Your task to perform on an android device: set the timer Image 0: 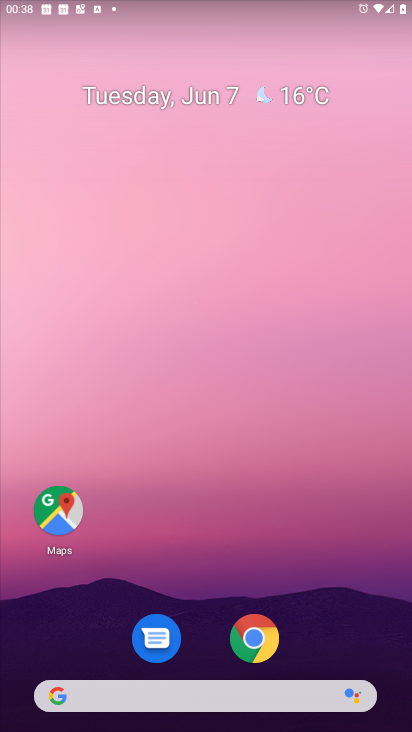
Step 0: drag from (283, 646) to (215, 69)
Your task to perform on an android device: set the timer Image 1: 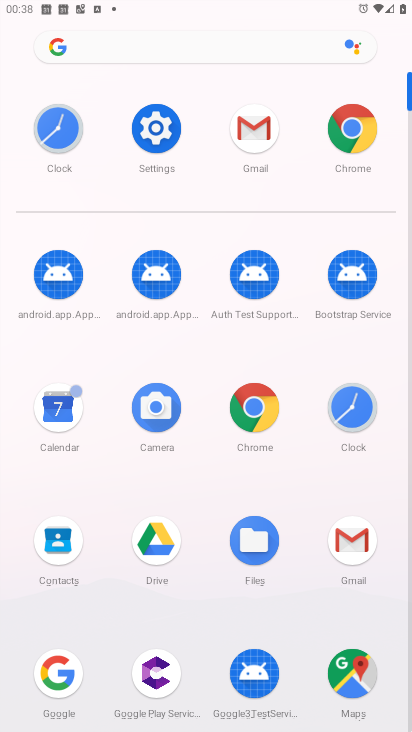
Step 1: click (362, 418)
Your task to perform on an android device: set the timer Image 2: 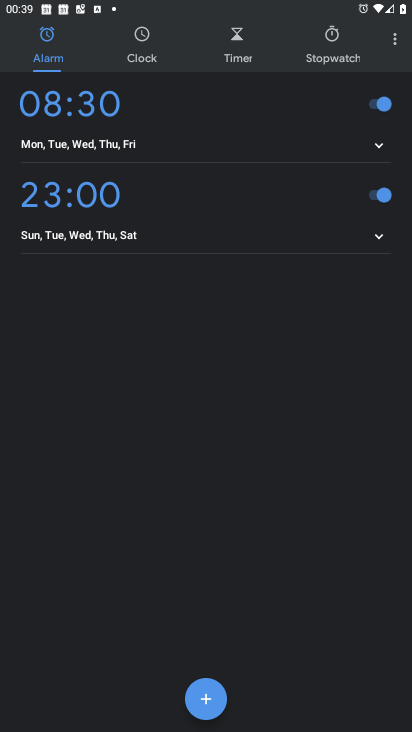
Step 2: click (231, 35)
Your task to perform on an android device: set the timer Image 3: 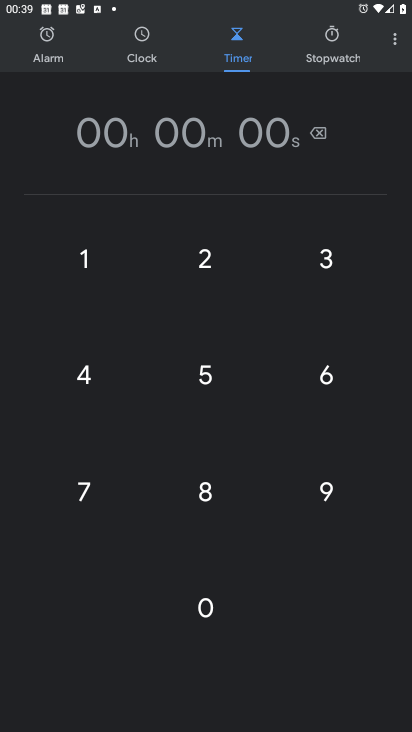
Step 3: click (246, 373)
Your task to perform on an android device: set the timer Image 4: 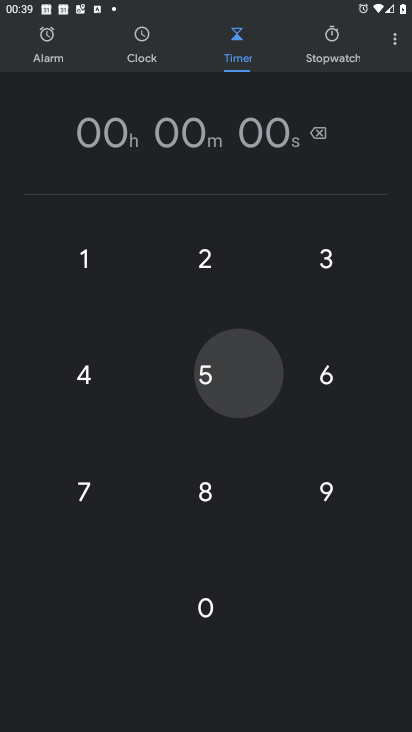
Step 4: click (90, 376)
Your task to perform on an android device: set the timer Image 5: 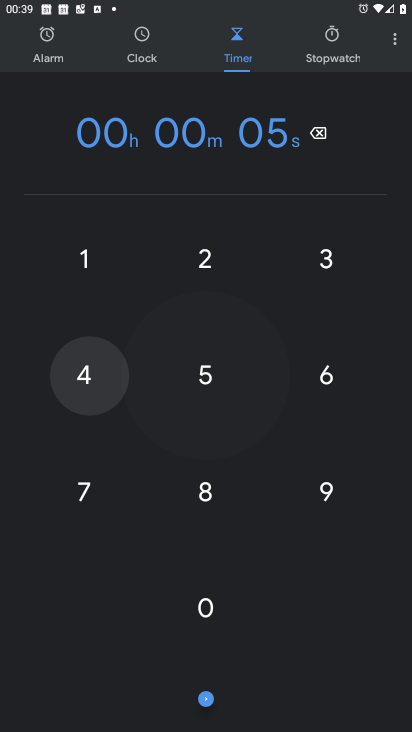
Step 5: click (249, 433)
Your task to perform on an android device: set the timer Image 6: 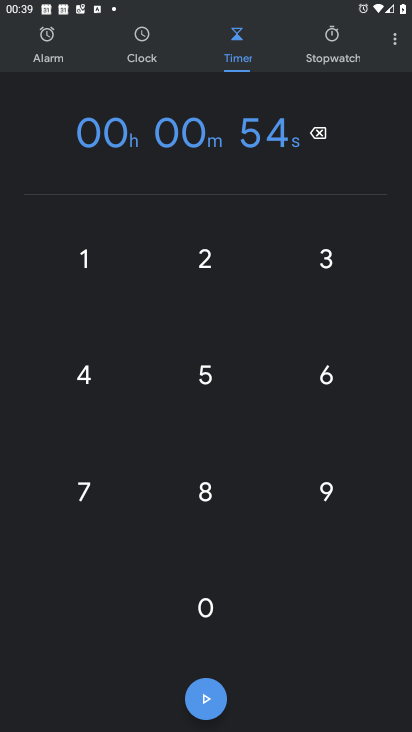
Step 6: click (224, 492)
Your task to perform on an android device: set the timer Image 7: 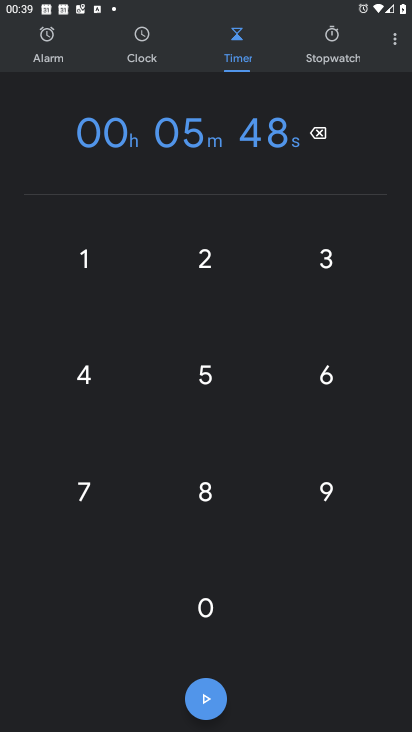
Step 7: task complete